Your task to perform on an android device: change timer sound Image 0: 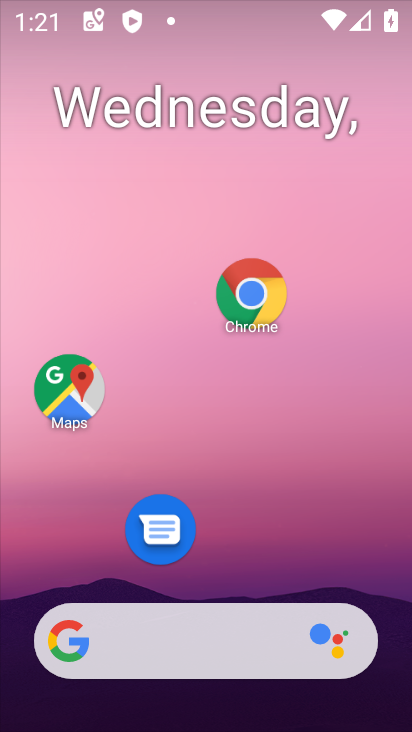
Step 0: drag from (268, 470) to (275, 290)
Your task to perform on an android device: change timer sound Image 1: 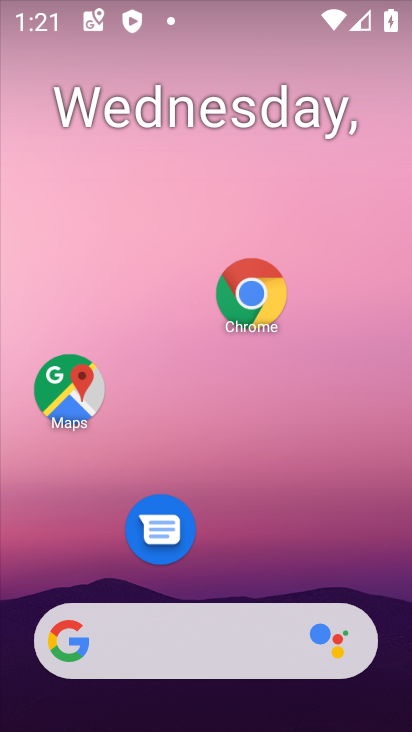
Step 1: drag from (238, 601) to (256, 253)
Your task to perform on an android device: change timer sound Image 2: 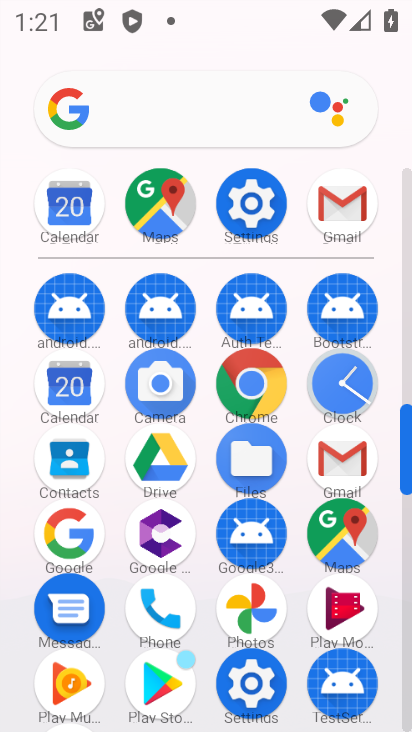
Step 2: click (340, 390)
Your task to perform on an android device: change timer sound Image 3: 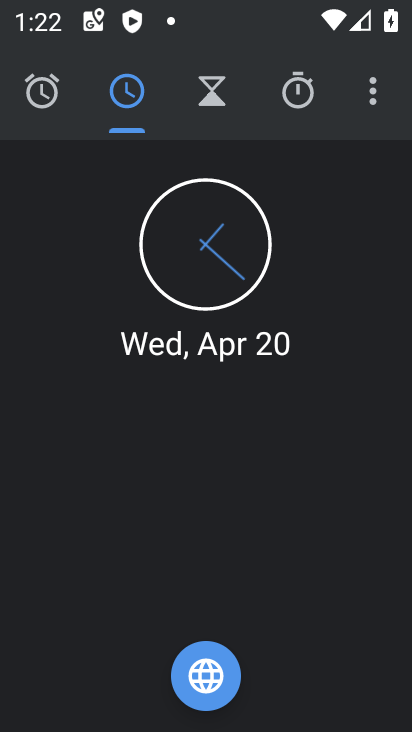
Step 3: click (233, 97)
Your task to perform on an android device: change timer sound Image 4: 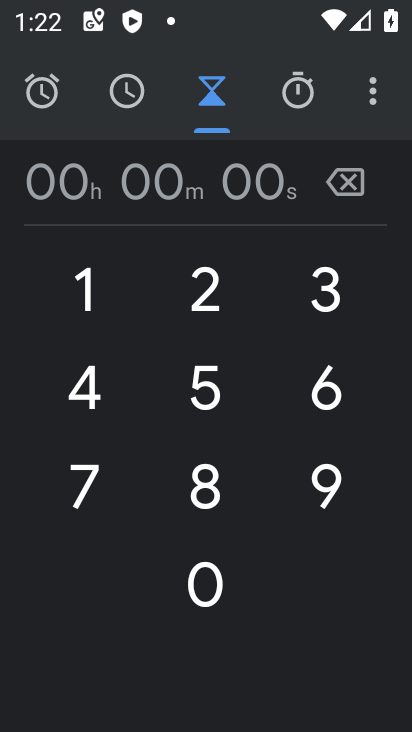
Step 4: click (196, 284)
Your task to perform on an android device: change timer sound Image 5: 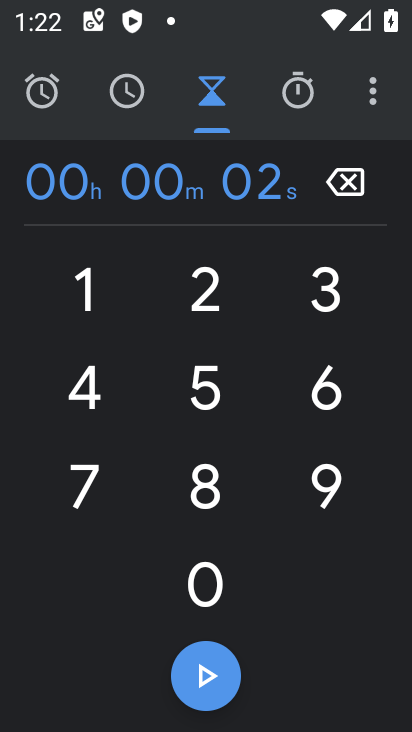
Step 5: click (208, 686)
Your task to perform on an android device: change timer sound Image 6: 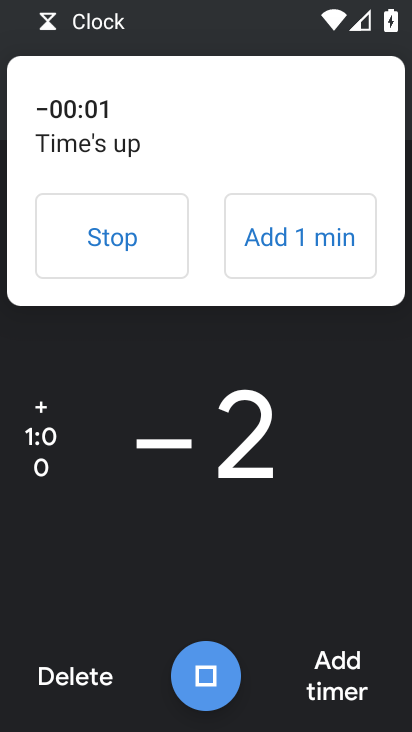
Step 6: task complete